Your task to perform on an android device: Go to settings Image 0: 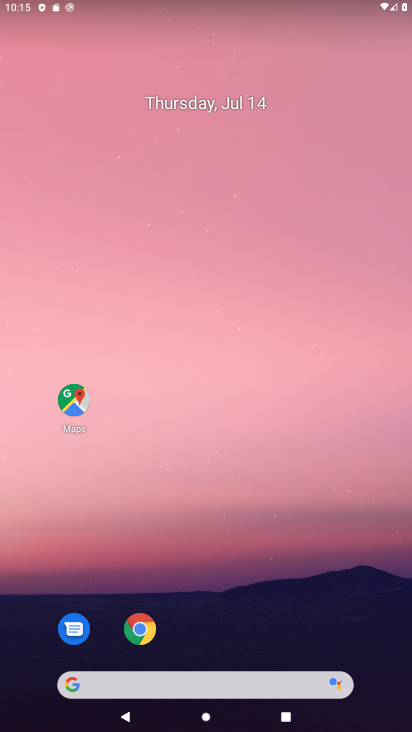
Step 0: drag from (209, 685) to (181, 293)
Your task to perform on an android device: Go to settings Image 1: 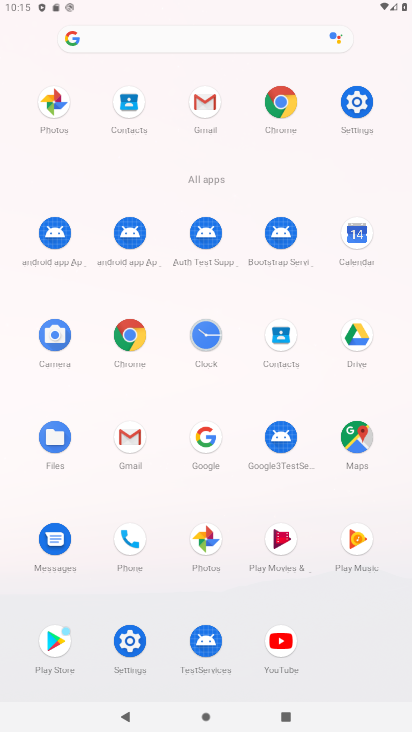
Step 1: click (359, 105)
Your task to perform on an android device: Go to settings Image 2: 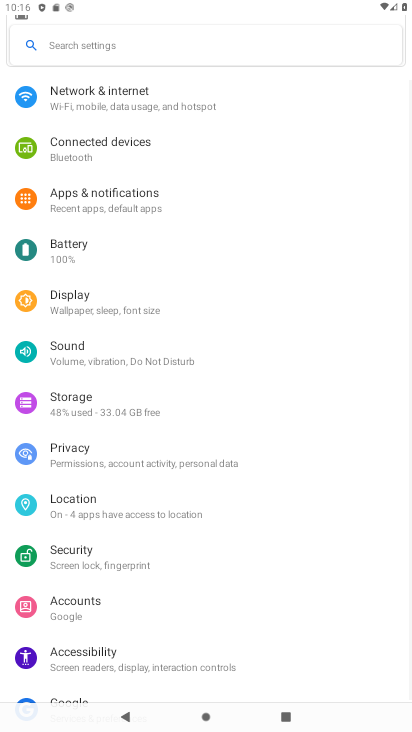
Step 2: task complete